Your task to perform on an android device: turn on location history Image 0: 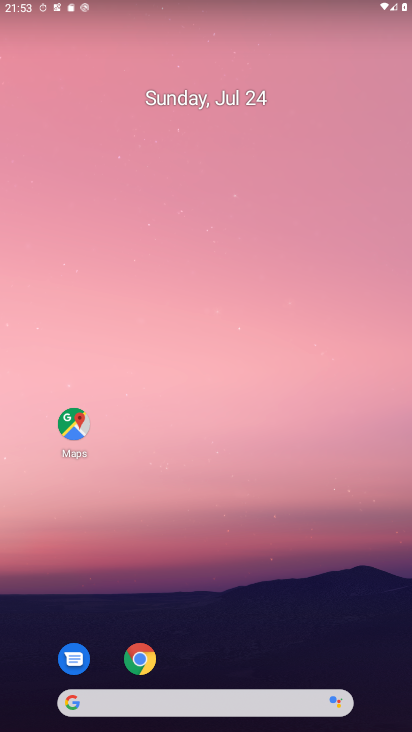
Step 0: drag from (198, 725) to (198, 64)
Your task to perform on an android device: turn on location history Image 1: 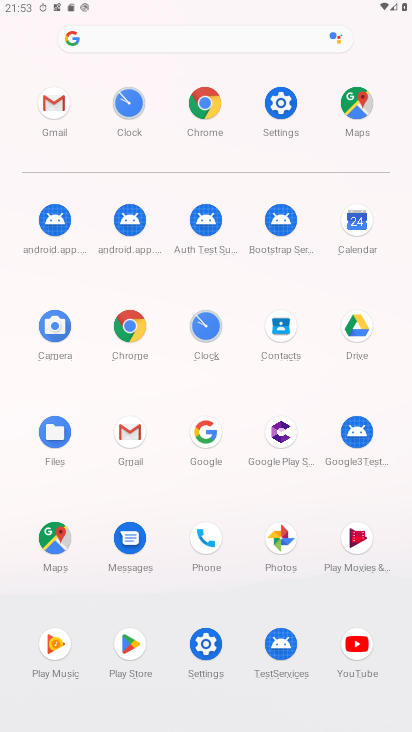
Step 1: click (290, 101)
Your task to perform on an android device: turn on location history Image 2: 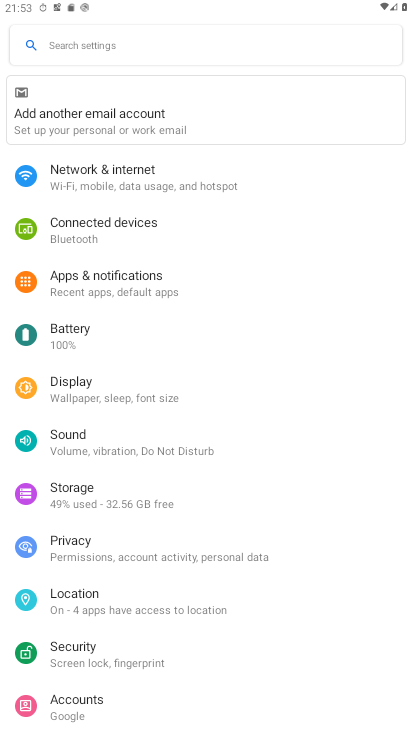
Step 2: click (71, 599)
Your task to perform on an android device: turn on location history Image 3: 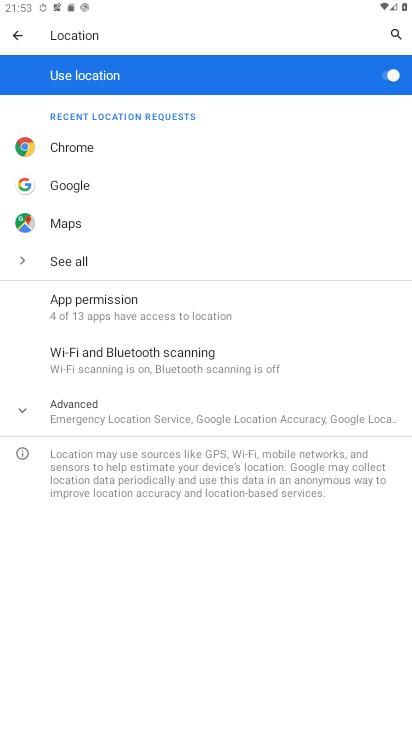
Step 3: click (79, 423)
Your task to perform on an android device: turn on location history Image 4: 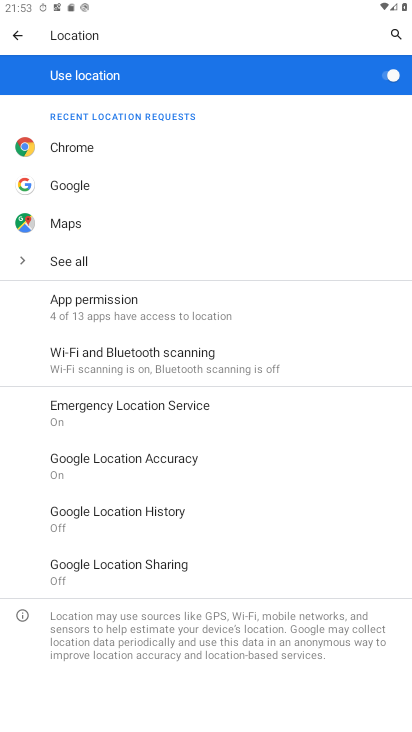
Step 4: click (74, 511)
Your task to perform on an android device: turn on location history Image 5: 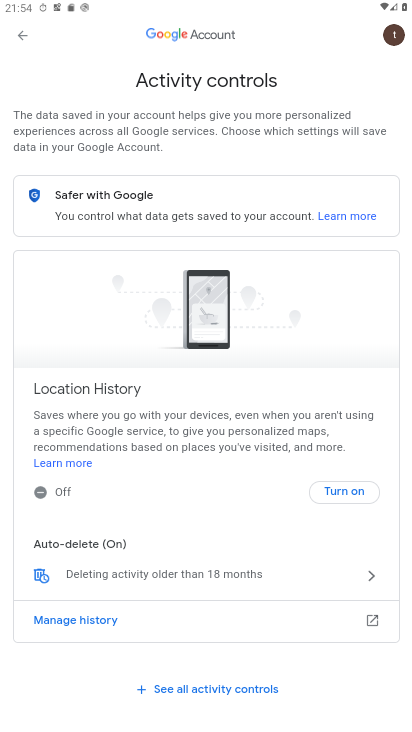
Step 5: click (337, 493)
Your task to perform on an android device: turn on location history Image 6: 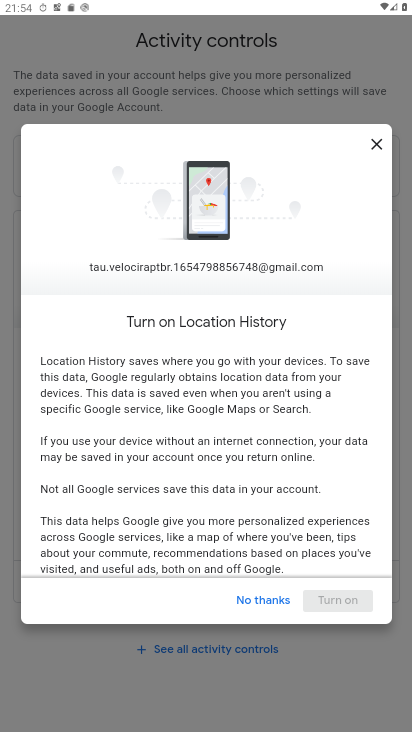
Step 6: drag from (342, 536) to (329, 270)
Your task to perform on an android device: turn on location history Image 7: 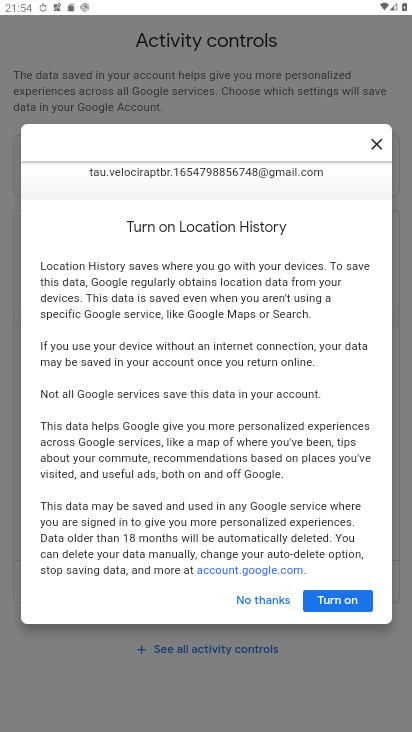
Step 7: click (341, 594)
Your task to perform on an android device: turn on location history Image 8: 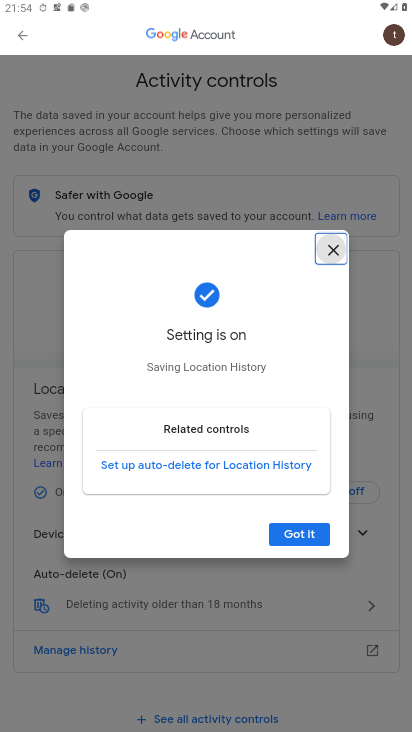
Step 8: click (302, 531)
Your task to perform on an android device: turn on location history Image 9: 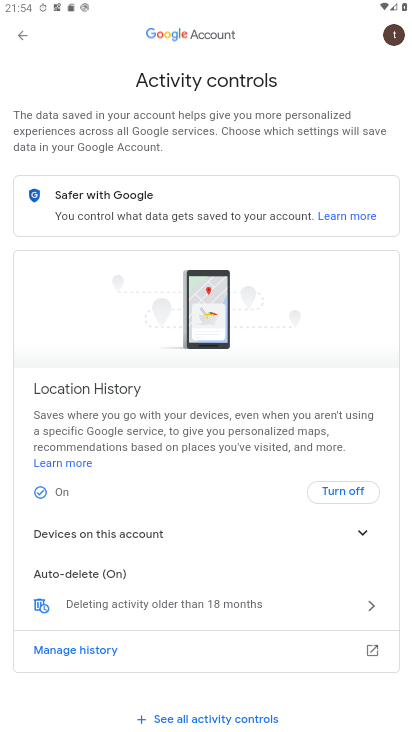
Step 9: task complete